Your task to perform on an android device: Is it going to rain today? Image 0: 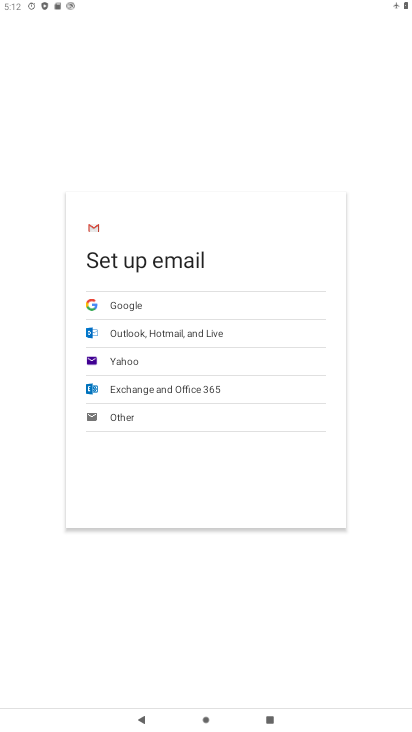
Step 0: press home button
Your task to perform on an android device: Is it going to rain today? Image 1: 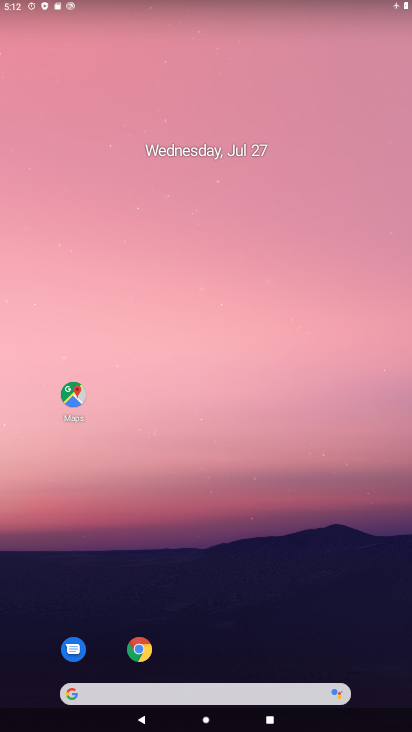
Step 1: drag from (182, 691) to (192, 56)
Your task to perform on an android device: Is it going to rain today? Image 2: 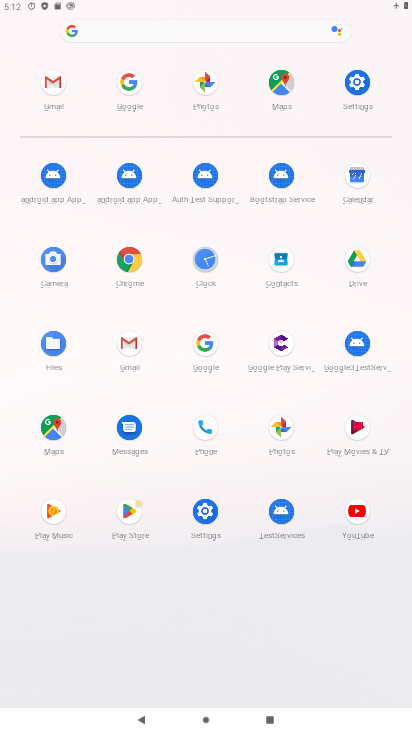
Step 2: click (202, 340)
Your task to perform on an android device: Is it going to rain today? Image 3: 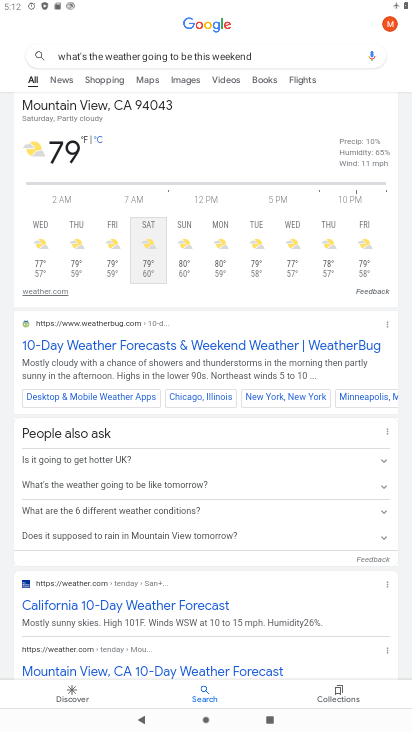
Step 3: click (296, 59)
Your task to perform on an android device: Is it going to rain today? Image 4: 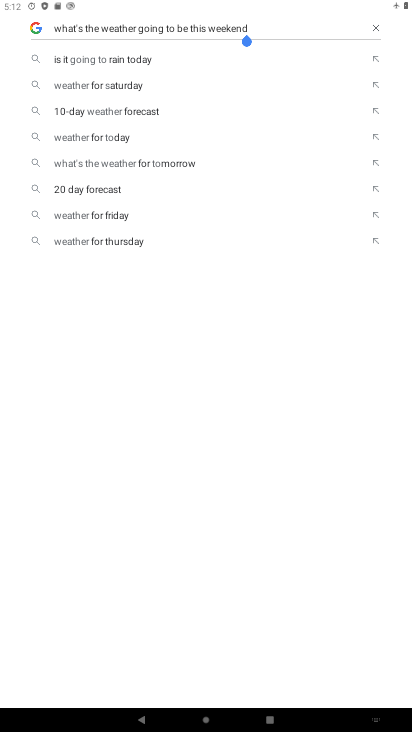
Step 4: click (375, 25)
Your task to perform on an android device: Is it going to rain today? Image 5: 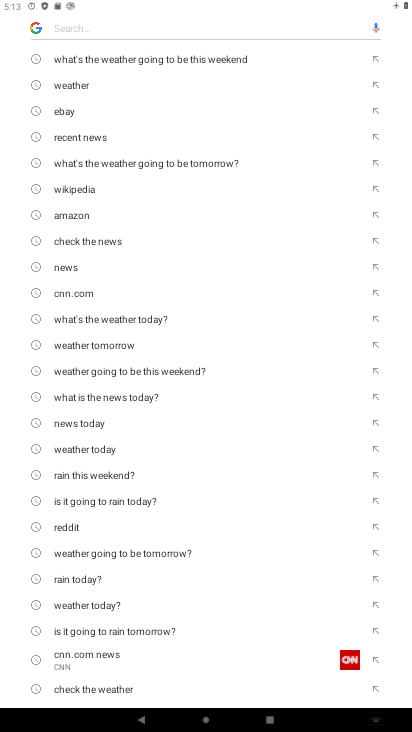
Step 5: type "Is it going to rain today?"
Your task to perform on an android device: Is it going to rain today? Image 6: 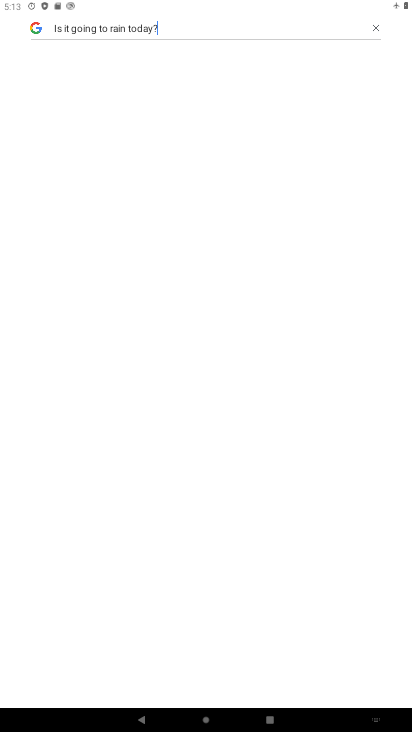
Step 6: task complete